Your task to perform on an android device: open chrome privacy settings Image 0: 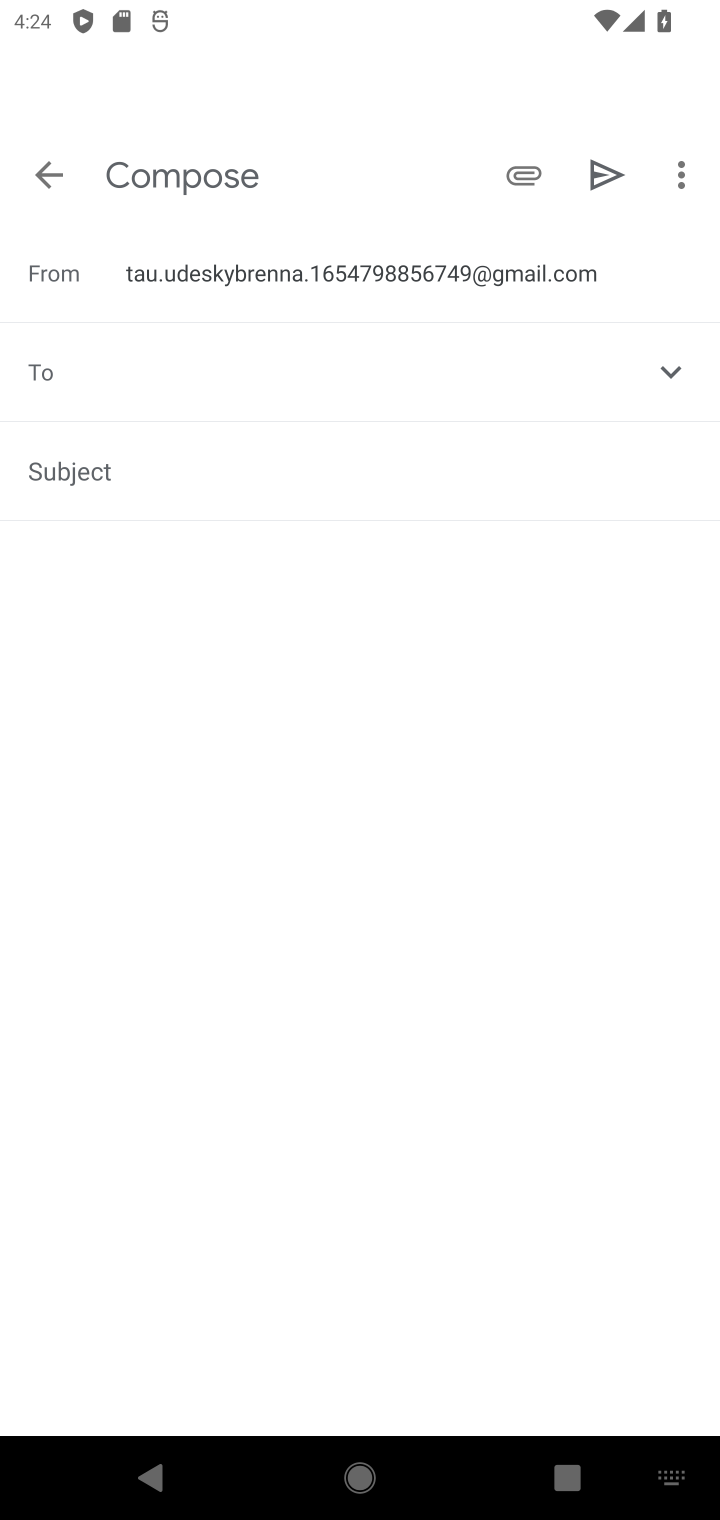
Step 0: press home button
Your task to perform on an android device: open chrome privacy settings Image 1: 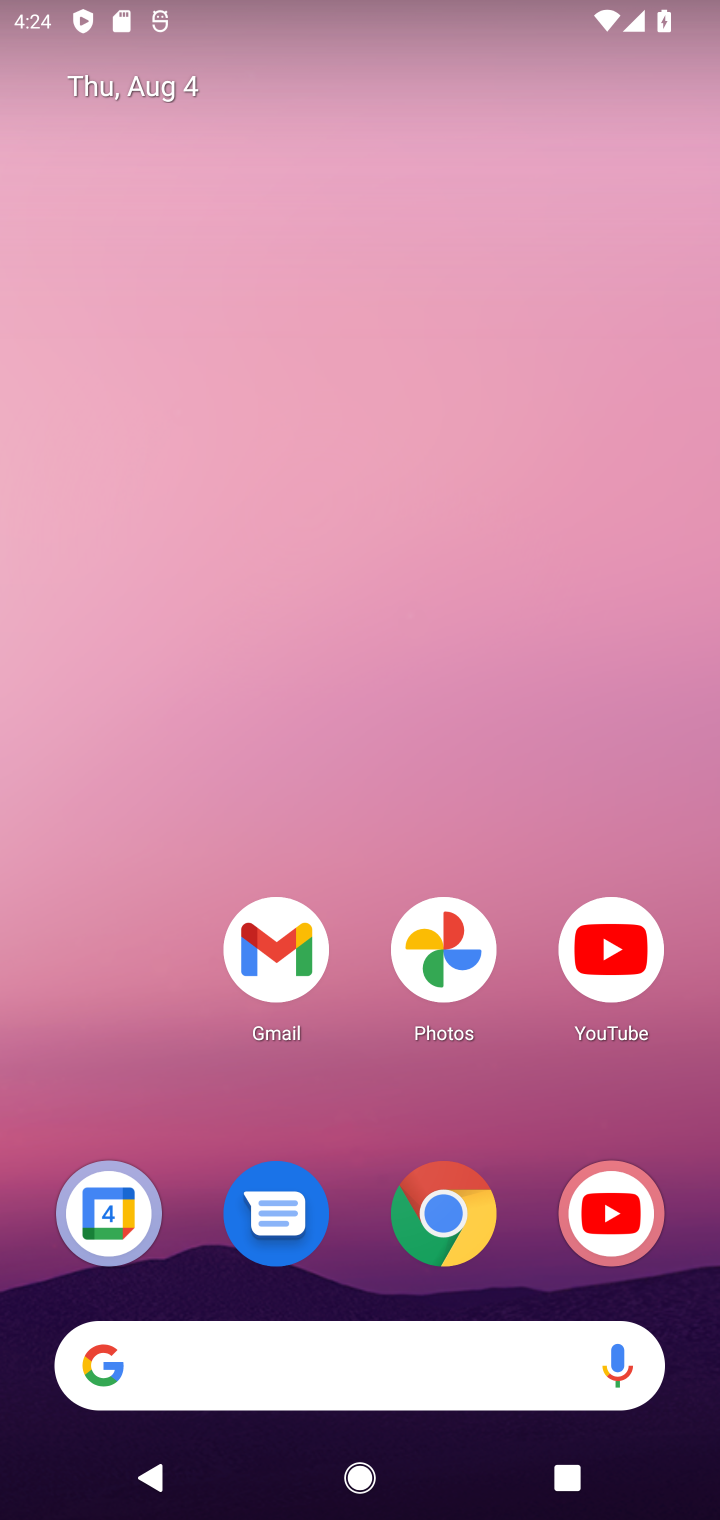
Step 1: drag from (167, 1126) to (151, 515)
Your task to perform on an android device: open chrome privacy settings Image 2: 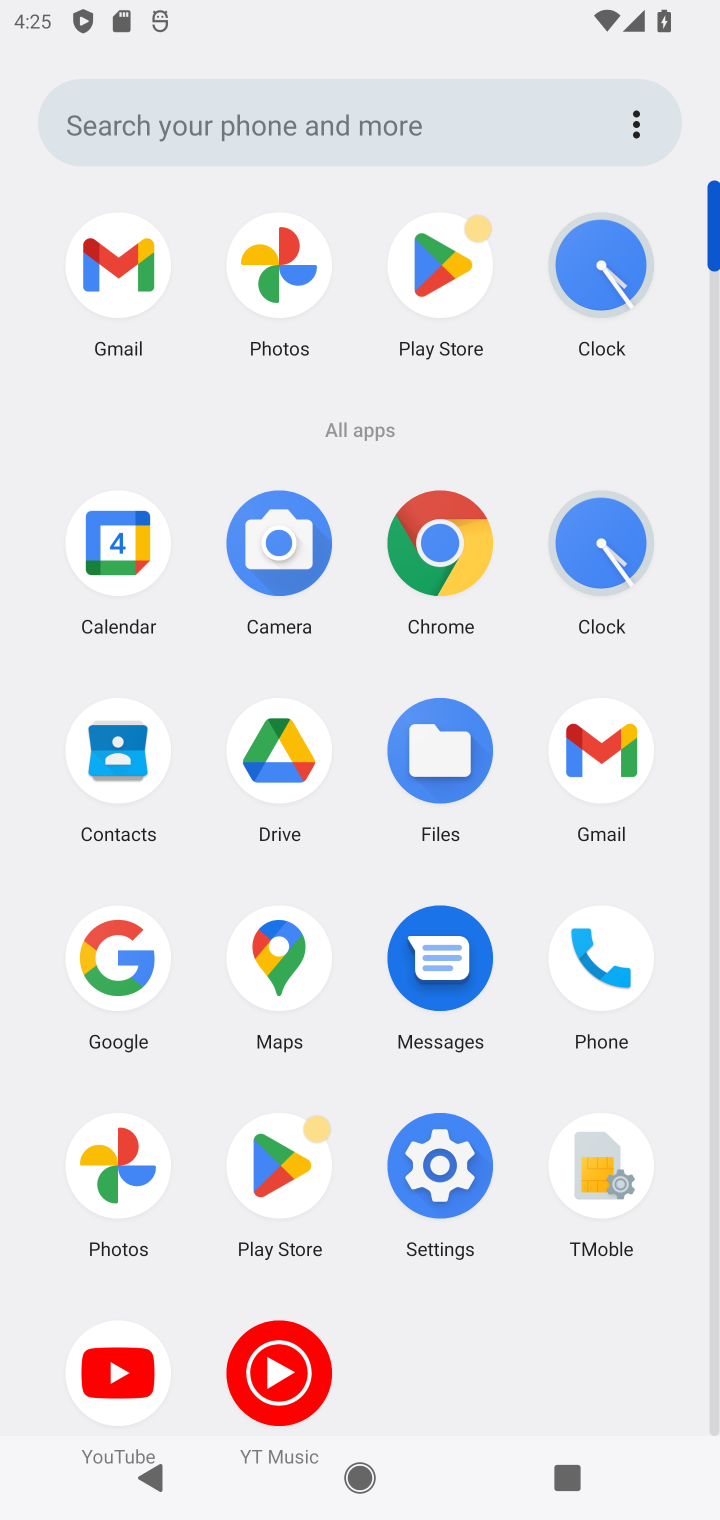
Step 2: click (437, 547)
Your task to perform on an android device: open chrome privacy settings Image 3: 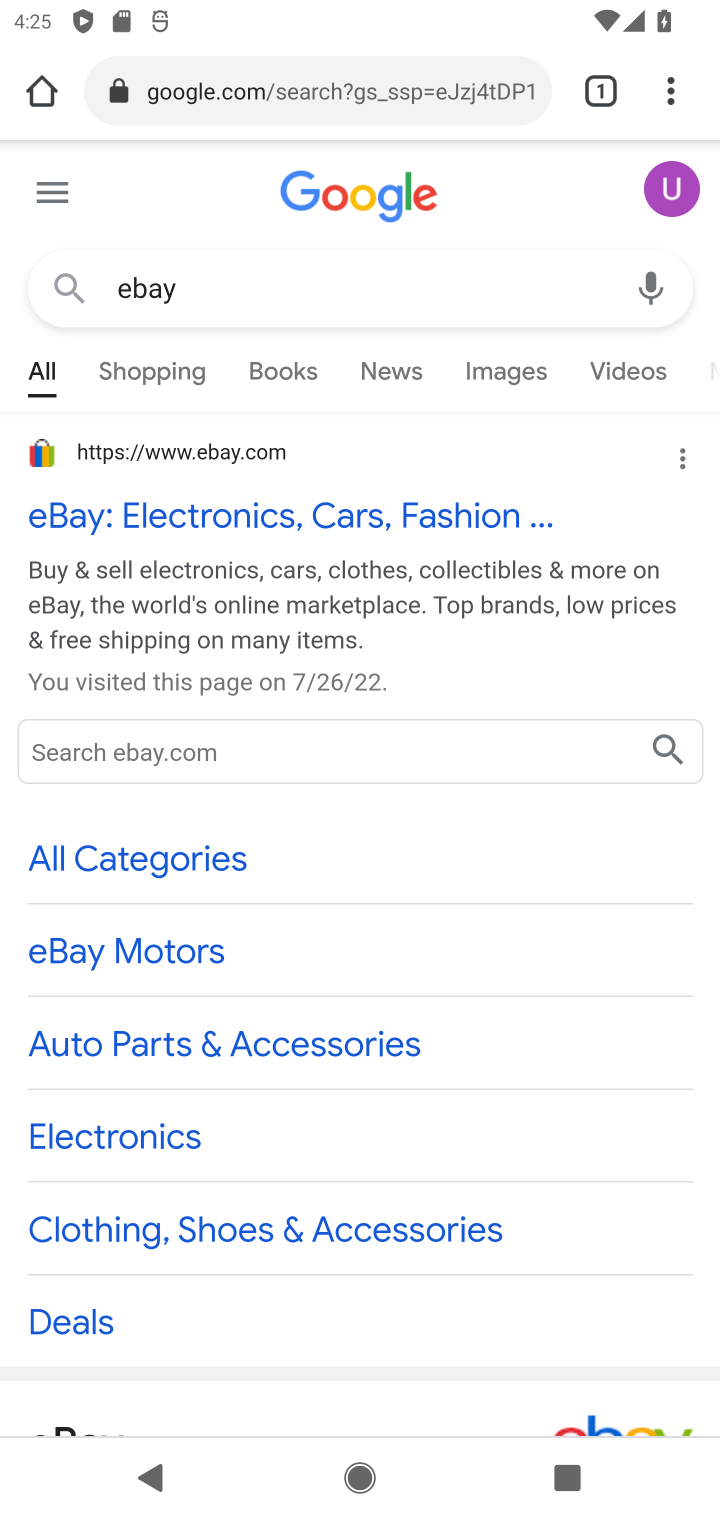
Step 3: click (671, 97)
Your task to perform on an android device: open chrome privacy settings Image 4: 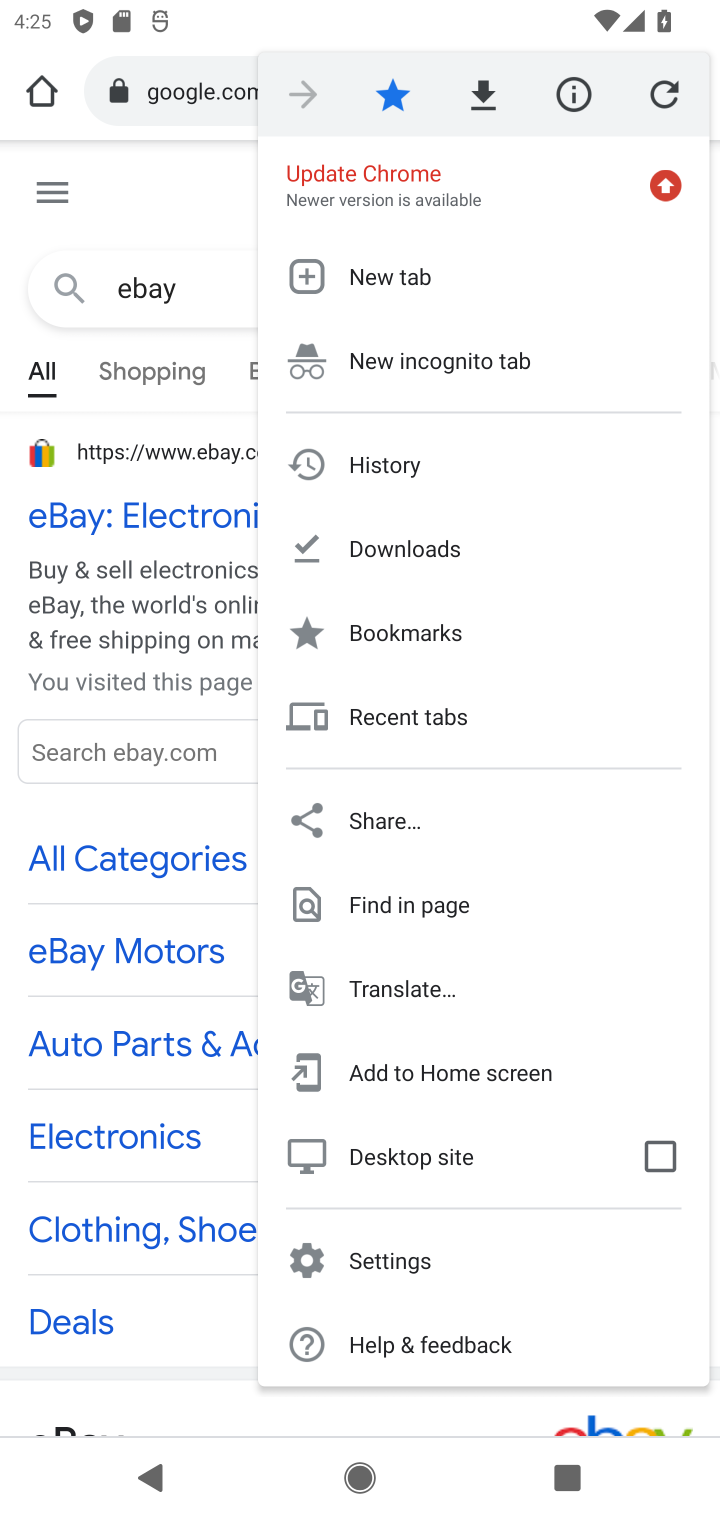
Step 4: drag from (560, 948) to (587, 663)
Your task to perform on an android device: open chrome privacy settings Image 5: 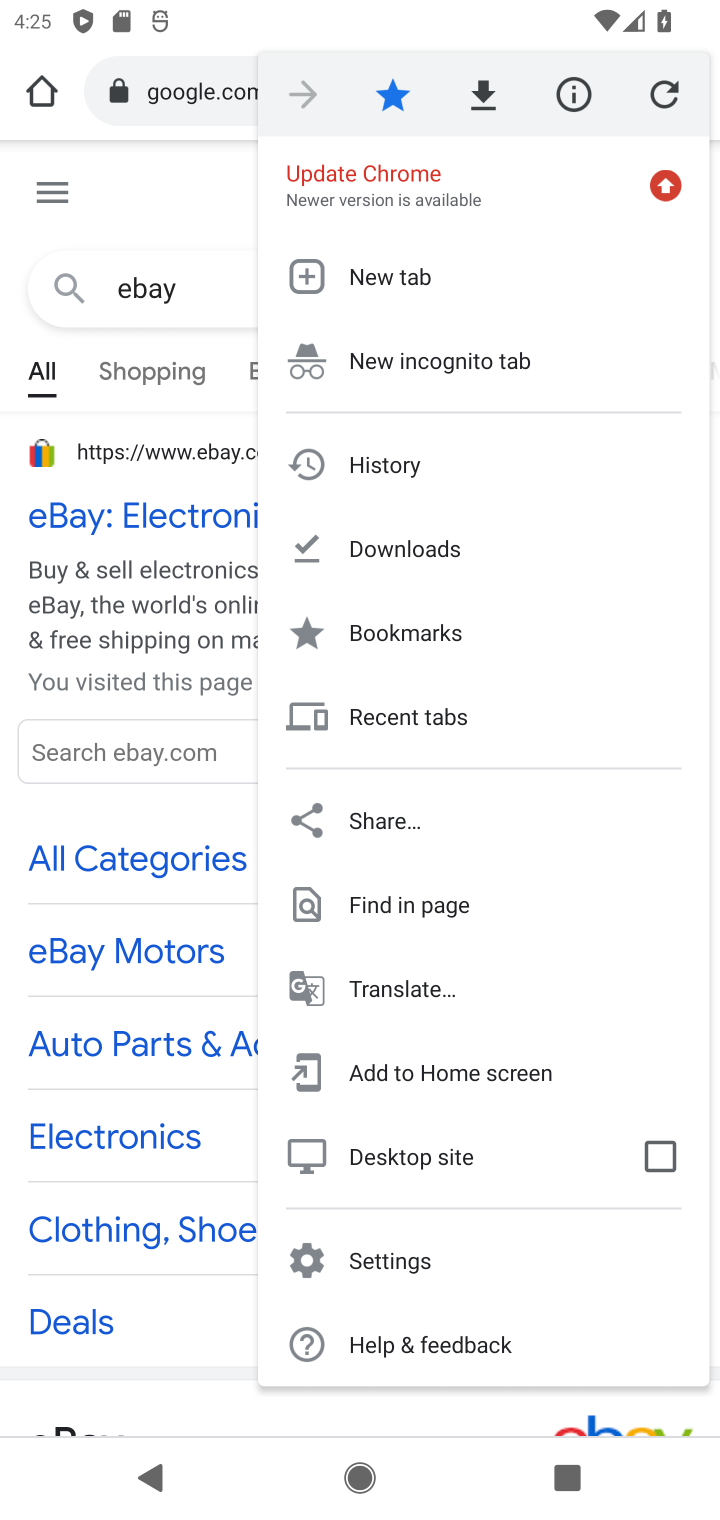
Step 5: click (489, 1253)
Your task to perform on an android device: open chrome privacy settings Image 6: 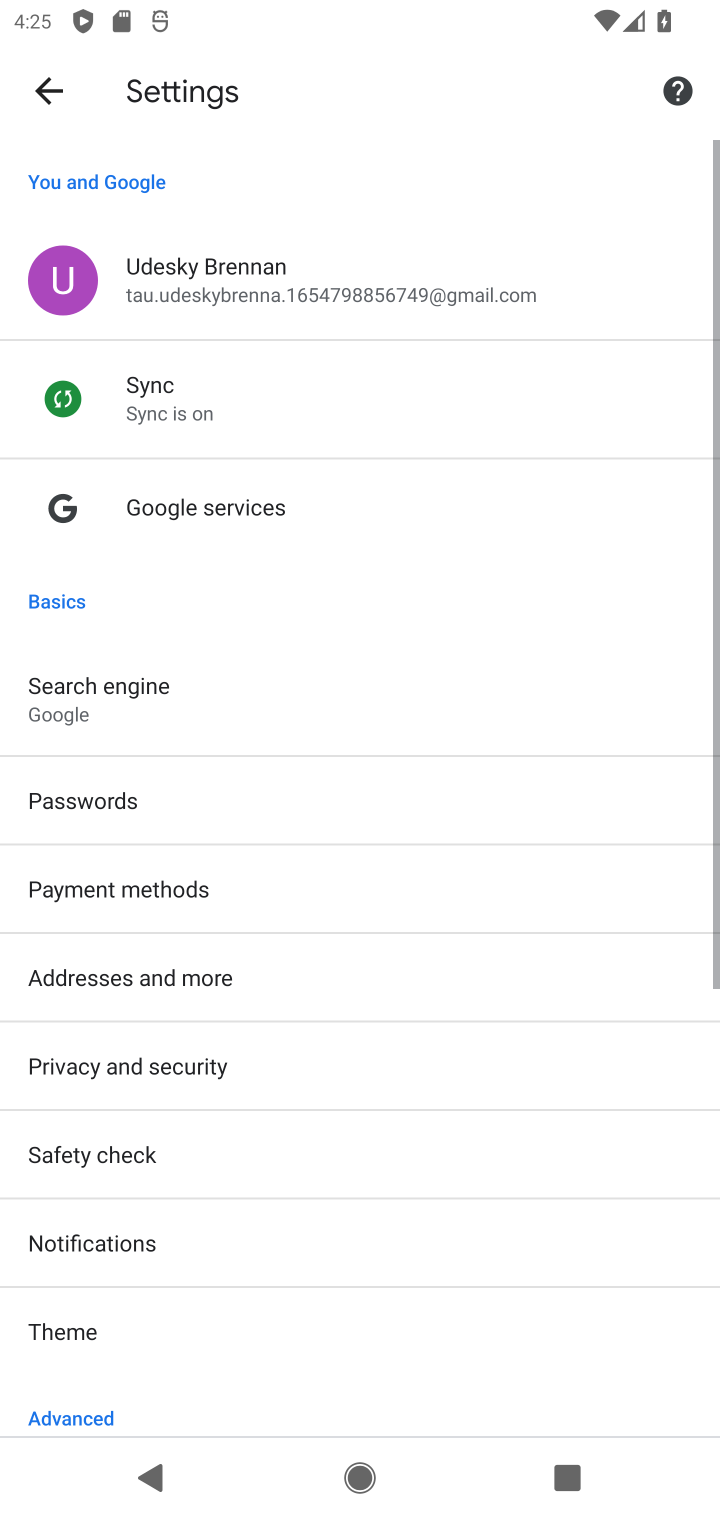
Step 6: drag from (489, 1253) to (506, 941)
Your task to perform on an android device: open chrome privacy settings Image 7: 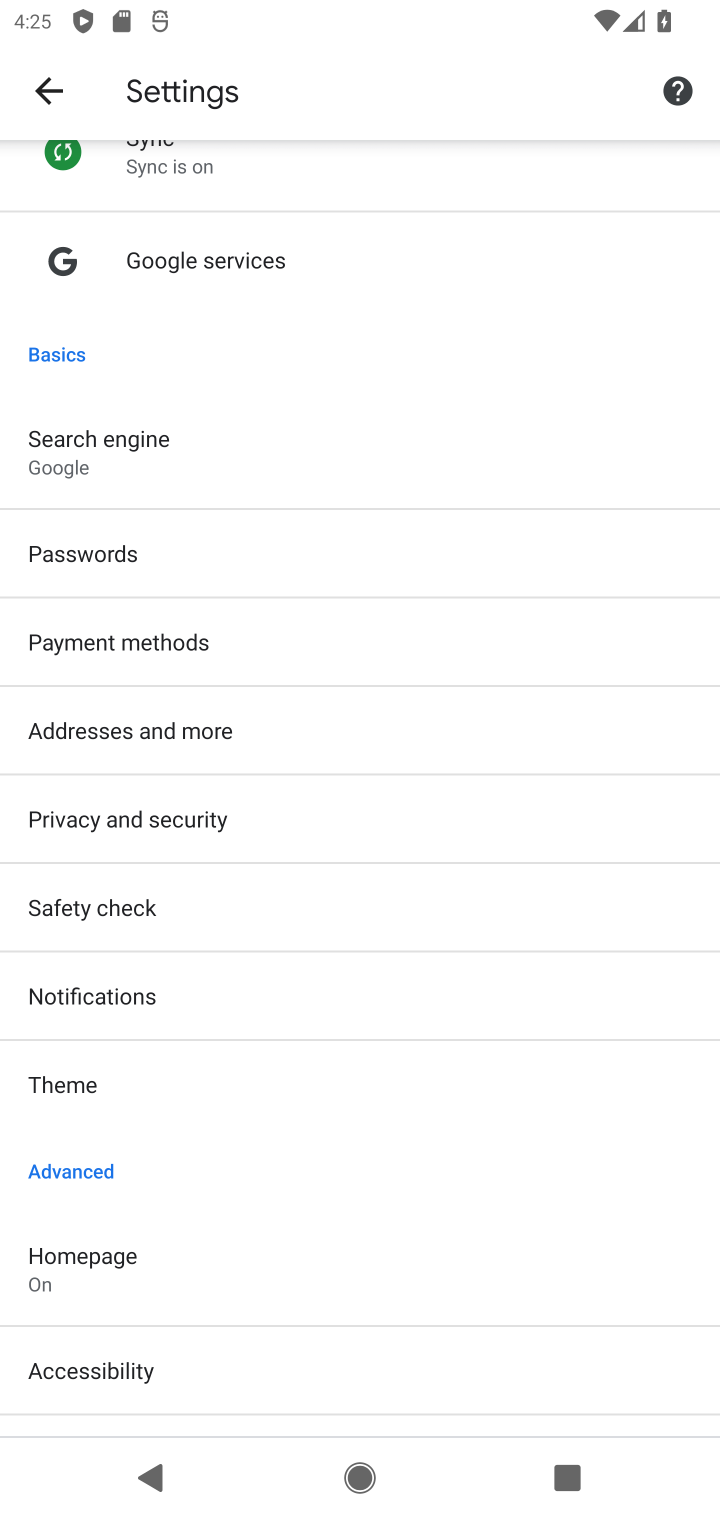
Step 7: drag from (513, 1252) to (510, 939)
Your task to perform on an android device: open chrome privacy settings Image 8: 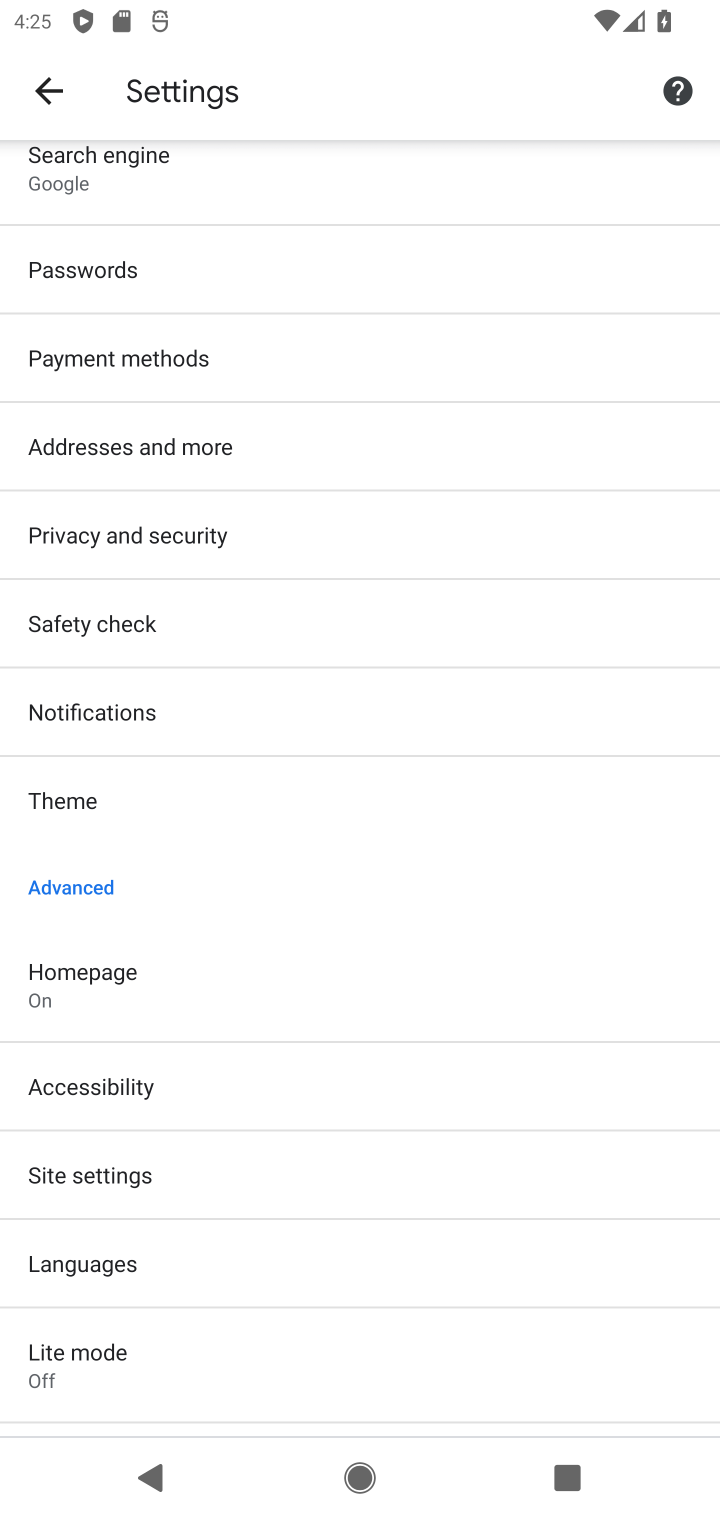
Step 8: drag from (521, 1239) to (504, 915)
Your task to perform on an android device: open chrome privacy settings Image 9: 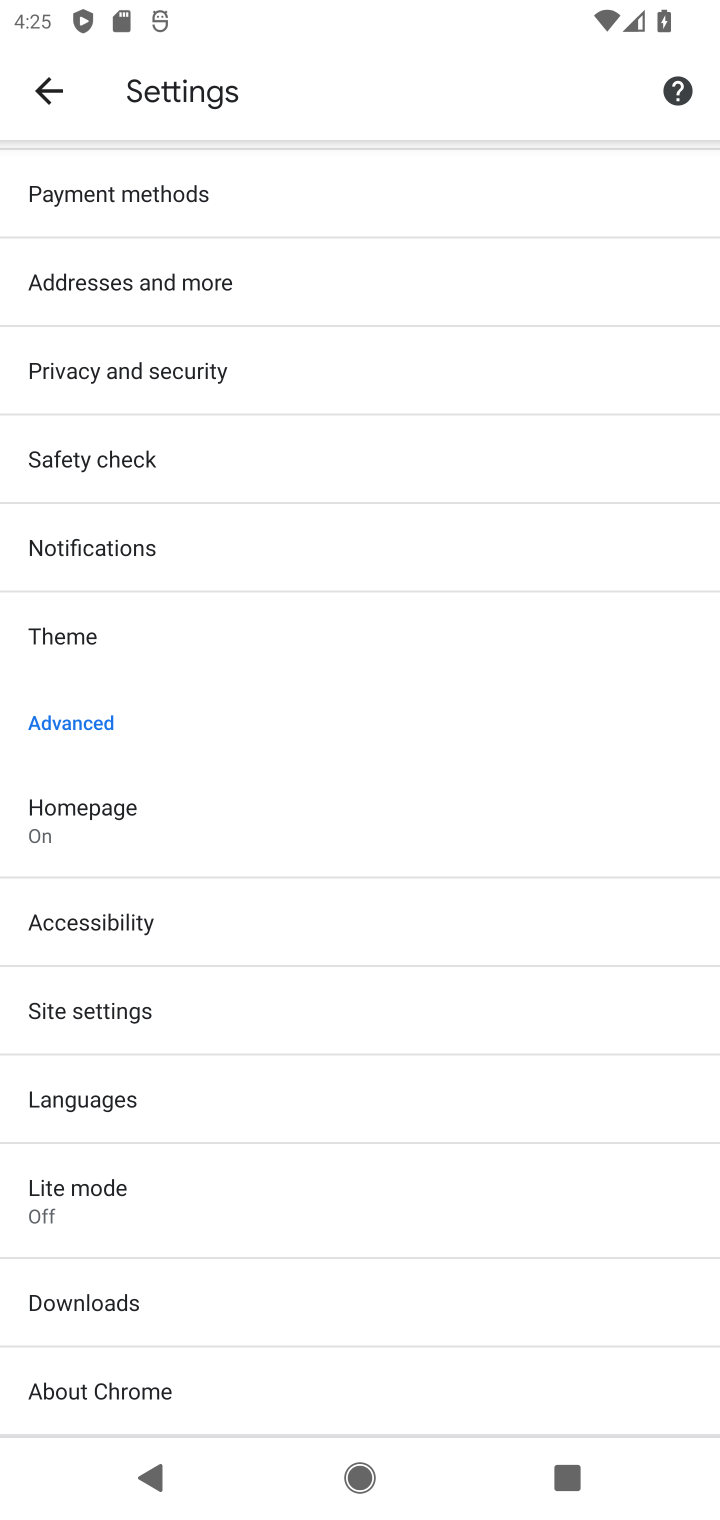
Step 9: click (486, 354)
Your task to perform on an android device: open chrome privacy settings Image 10: 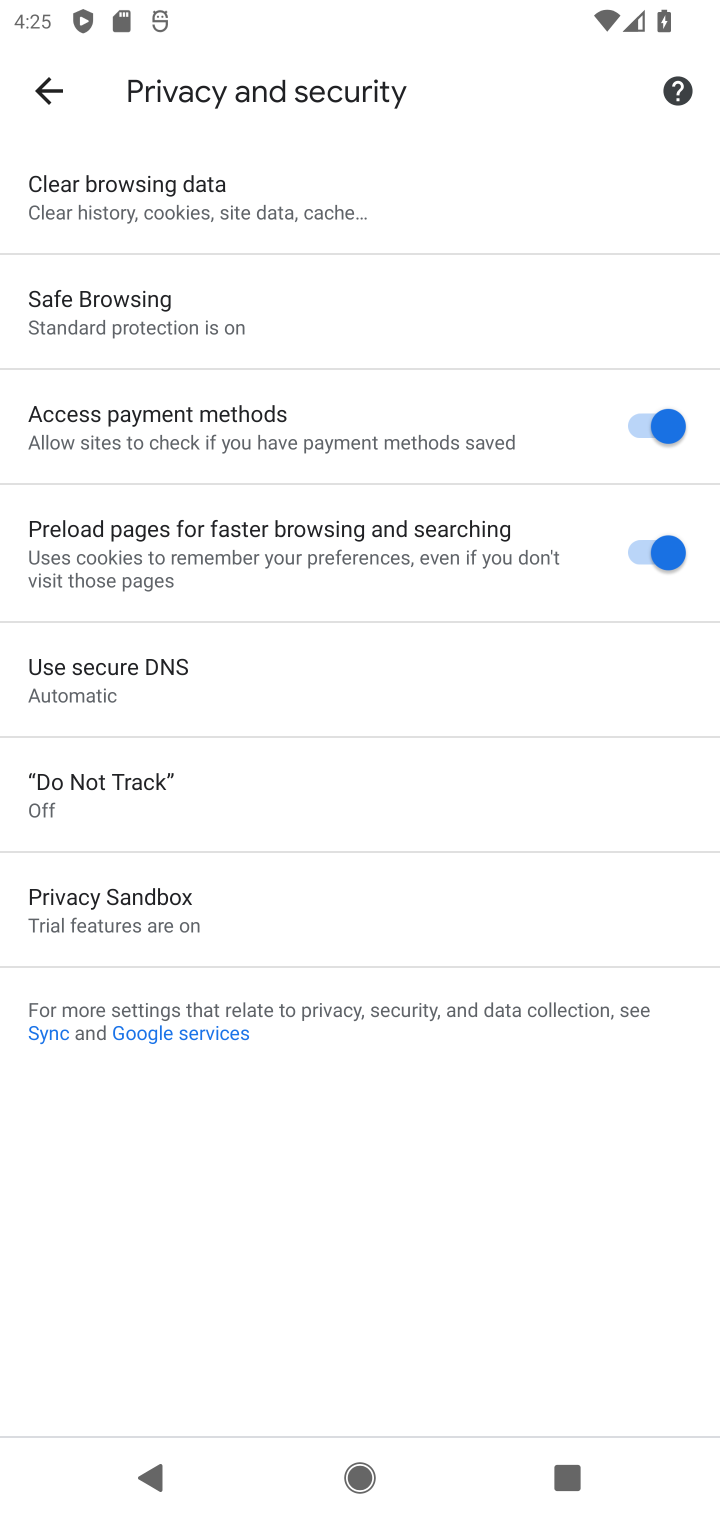
Step 10: task complete